Your task to perform on an android device: Open CNN.com Image 0: 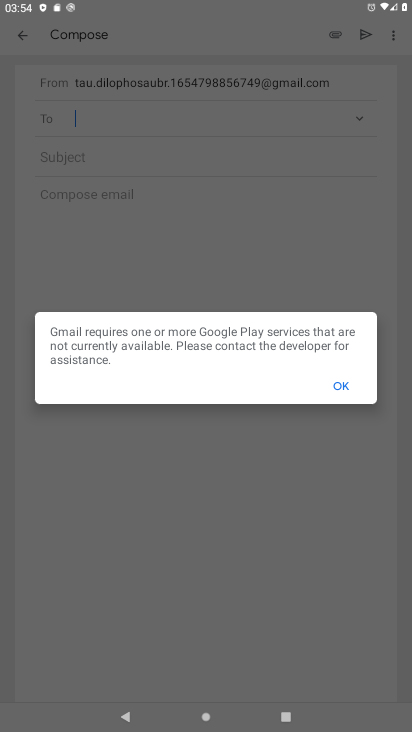
Step 0: drag from (373, 662) to (306, 175)
Your task to perform on an android device: Open CNN.com Image 1: 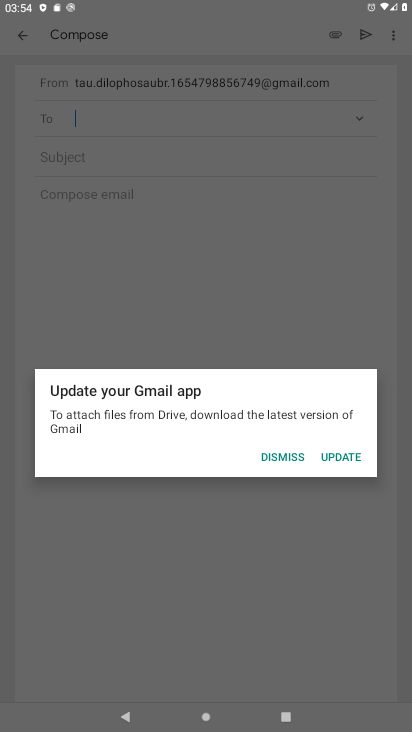
Step 1: press home button
Your task to perform on an android device: Open CNN.com Image 2: 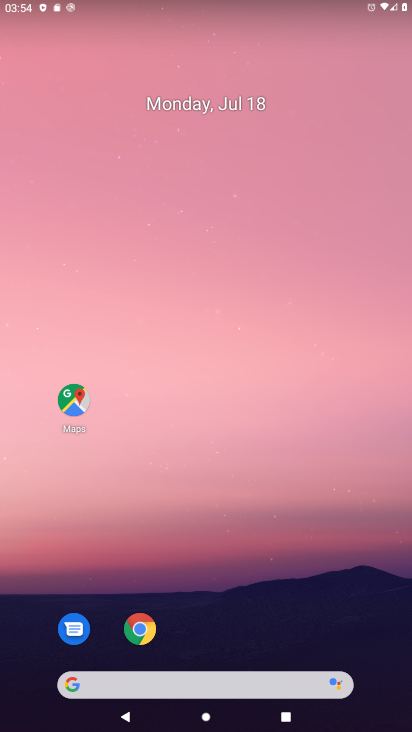
Step 2: click (140, 634)
Your task to perform on an android device: Open CNN.com Image 3: 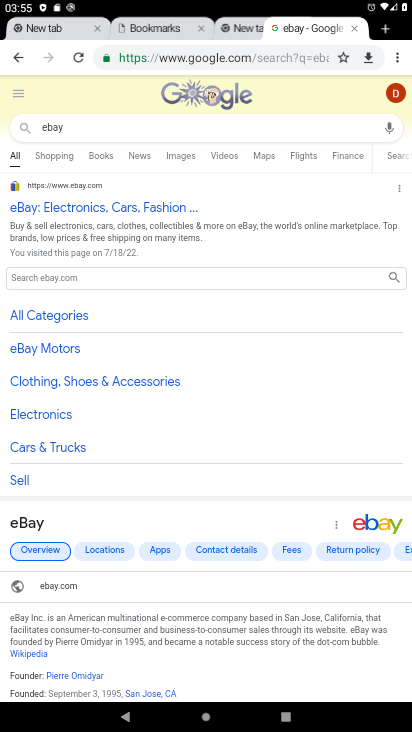
Step 3: click (308, 55)
Your task to perform on an android device: Open CNN.com Image 4: 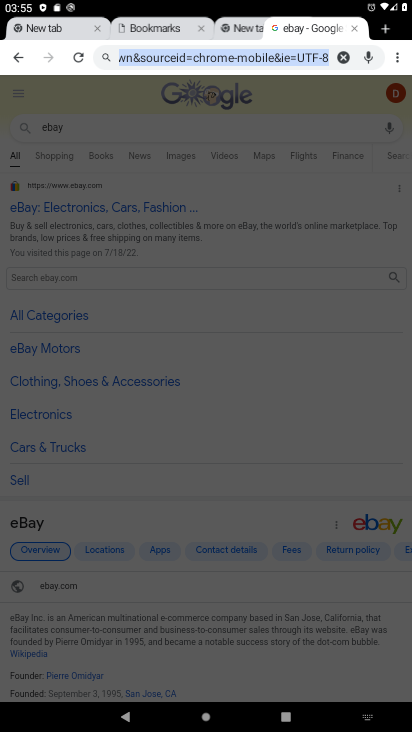
Step 4: click (341, 57)
Your task to perform on an android device: Open CNN.com Image 5: 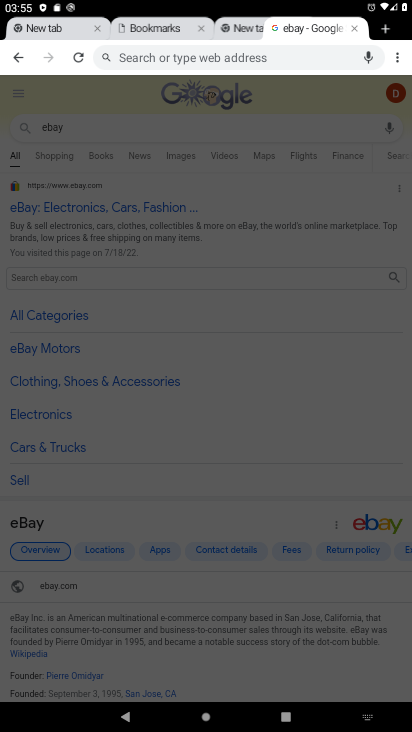
Step 5: type "CNN.com"
Your task to perform on an android device: Open CNN.com Image 6: 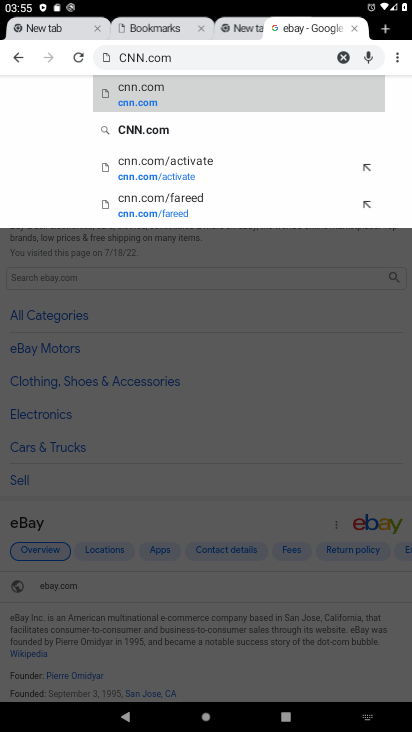
Step 6: click (161, 126)
Your task to perform on an android device: Open CNN.com Image 7: 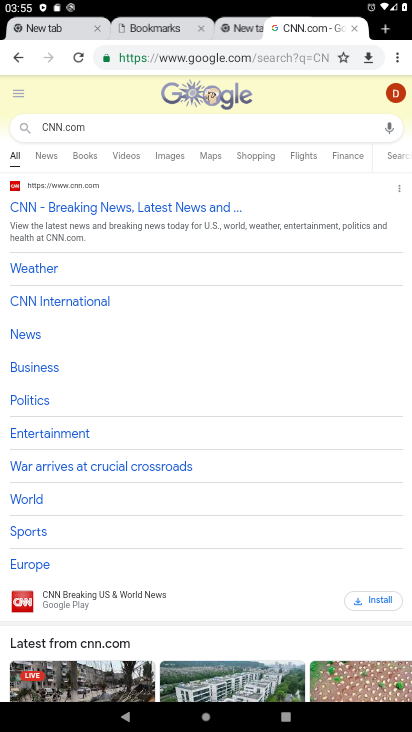
Step 7: task complete